Your task to perform on an android device: Open calendar and show me the first week of next month Image 0: 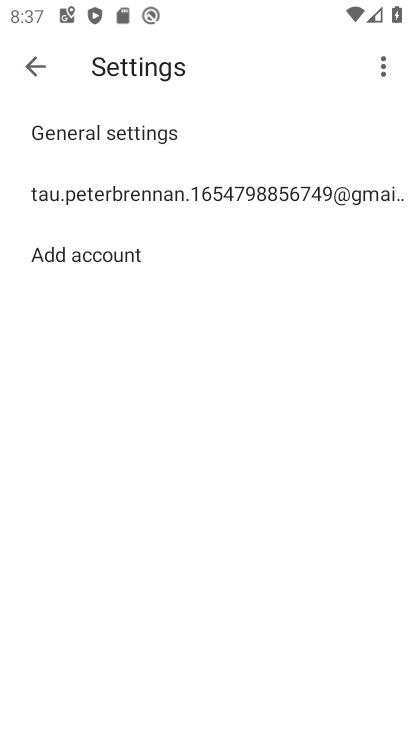
Step 0: press home button
Your task to perform on an android device: Open calendar and show me the first week of next month Image 1: 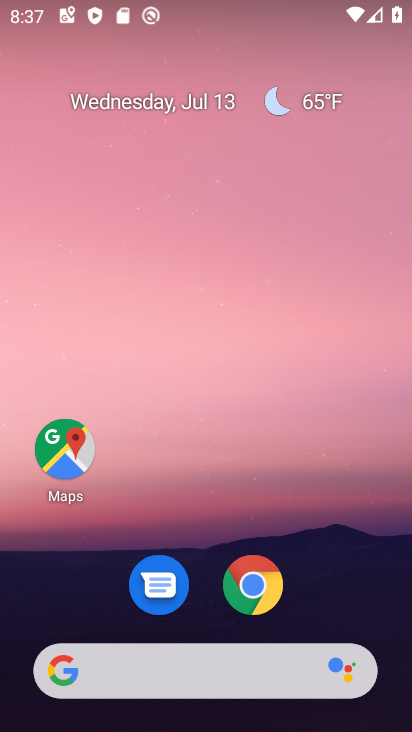
Step 1: drag from (213, 507) to (211, 8)
Your task to perform on an android device: Open calendar and show me the first week of next month Image 2: 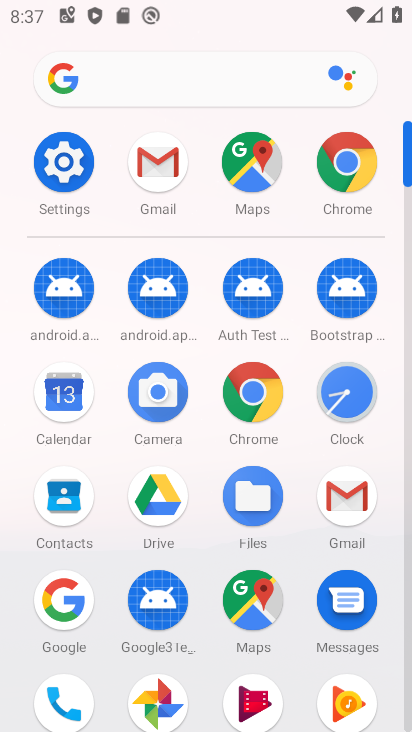
Step 2: click (66, 399)
Your task to perform on an android device: Open calendar and show me the first week of next month Image 3: 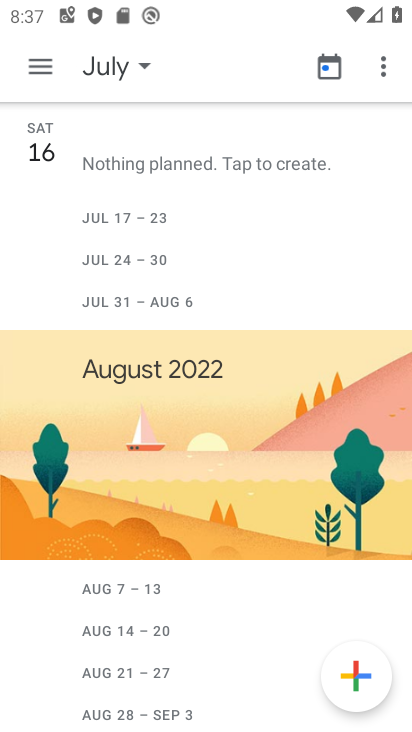
Step 3: click (41, 71)
Your task to perform on an android device: Open calendar and show me the first week of next month Image 4: 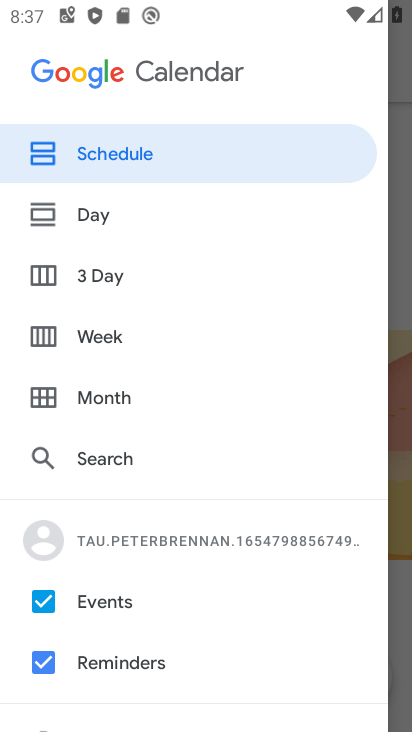
Step 4: click (48, 336)
Your task to perform on an android device: Open calendar and show me the first week of next month Image 5: 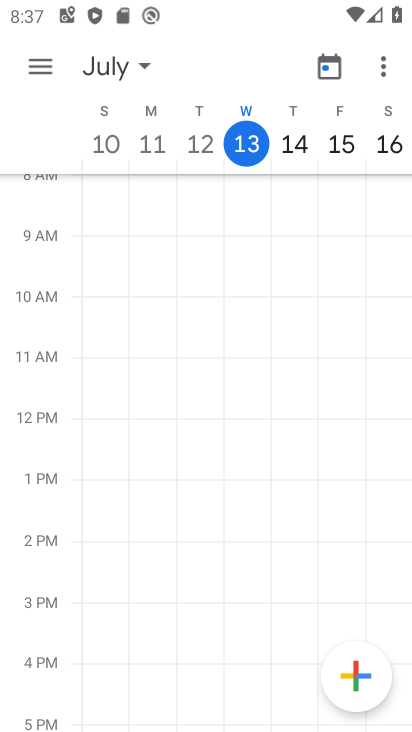
Step 5: task complete